Your task to perform on an android device: open device folders in google photos Image 0: 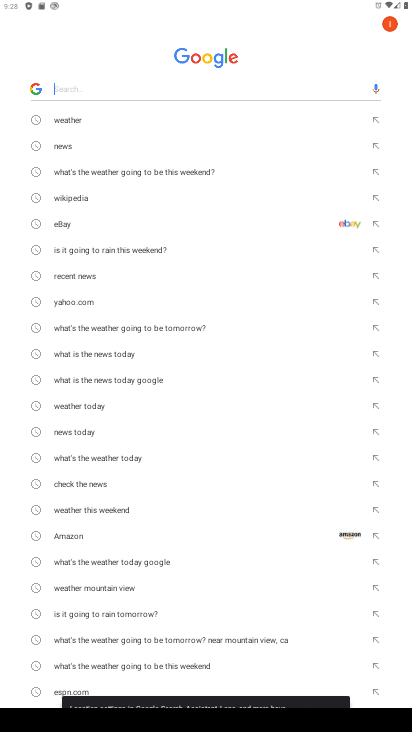
Step 0: press home button
Your task to perform on an android device: open device folders in google photos Image 1: 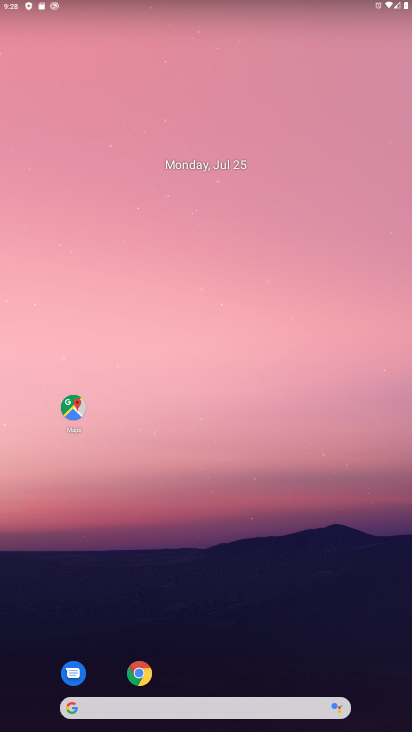
Step 1: drag from (254, 673) to (189, 164)
Your task to perform on an android device: open device folders in google photos Image 2: 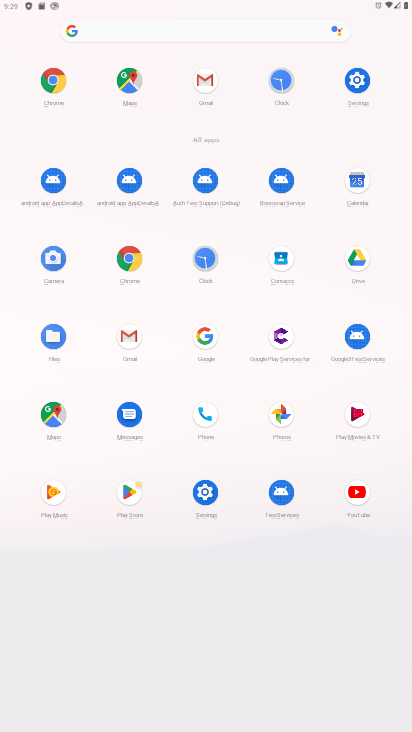
Step 2: click (277, 410)
Your task to perform on an android device: open device folders in google photos Image 3: 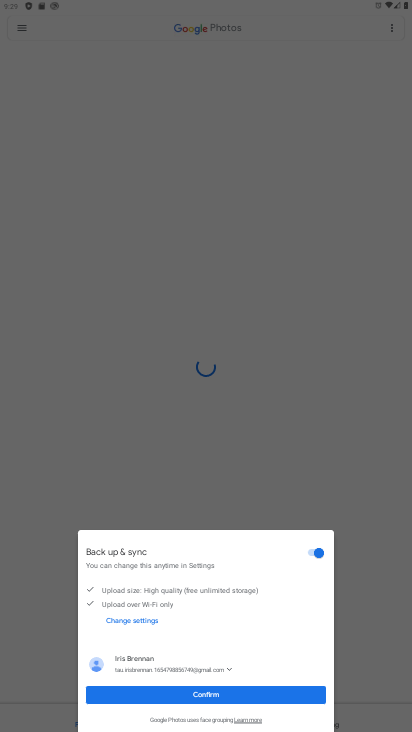
Step 3: click (283, 694)
Your task to perform on an android device: open device folders in google photos Image 4: 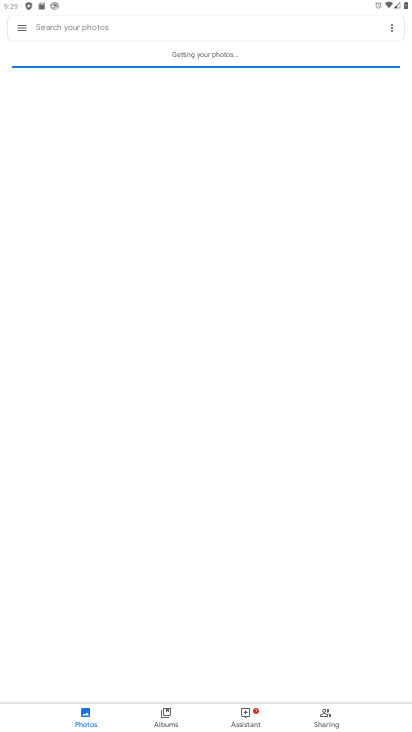
Step 4: click (12, 23)
Your task to perform on an android device: open device folders in google photos Image 5: 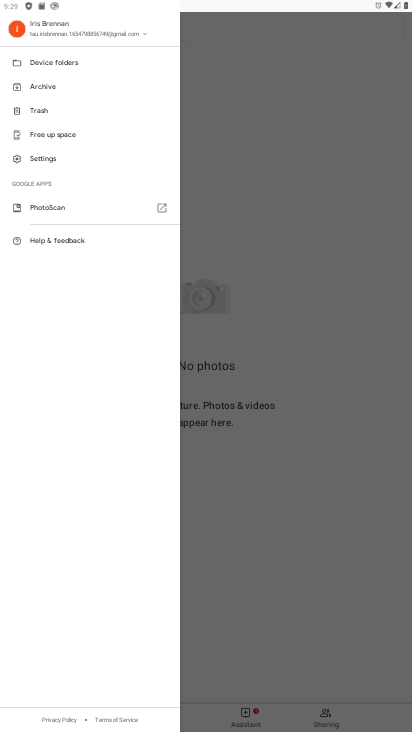
Step 5: click (49, 59)
Your task to perform on an android device: open device folders in google photos Image 6: 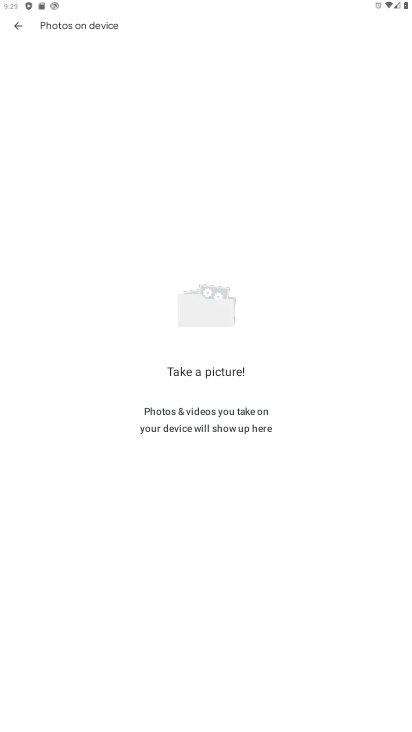
Step 6: task complete